Your task to perform on an android device: Open CNN.com Image 0: 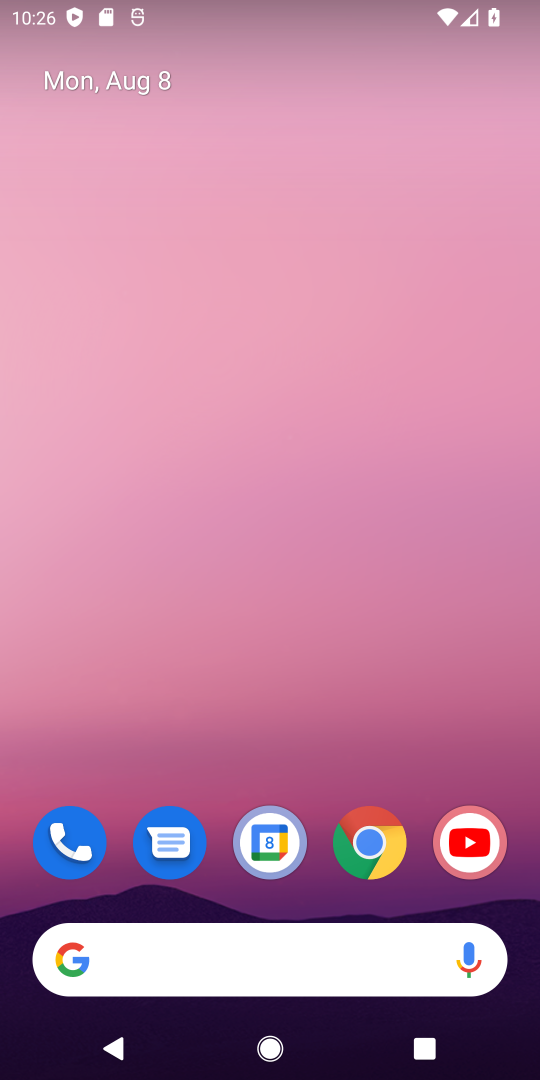
Step 0: click (370, 837)
Your task to perform on an android device: Open CNN.com Image 1: 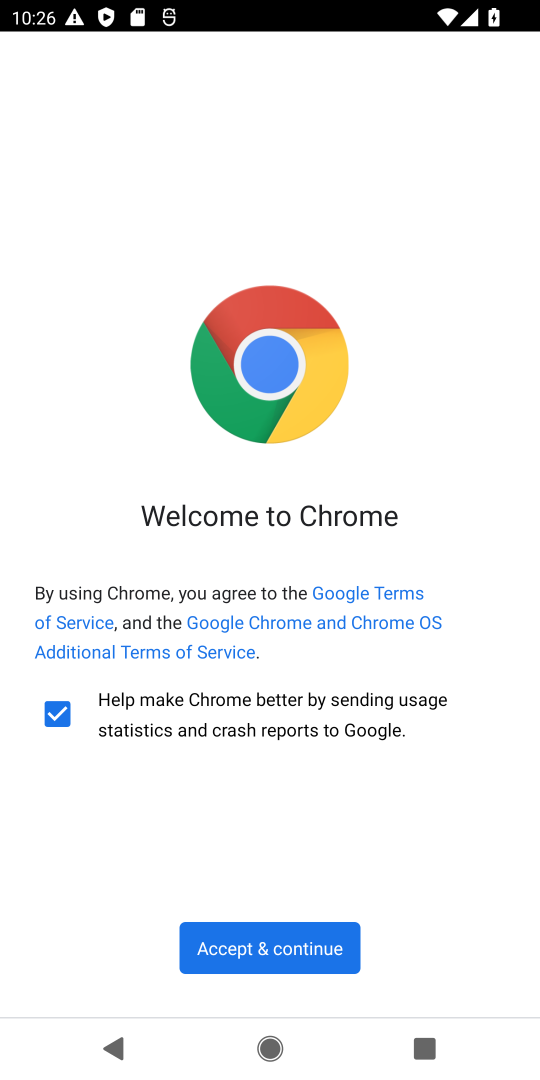
Step 1: click (258, 954)
Your task to perform on an android device: Open CNN.com Image 2: 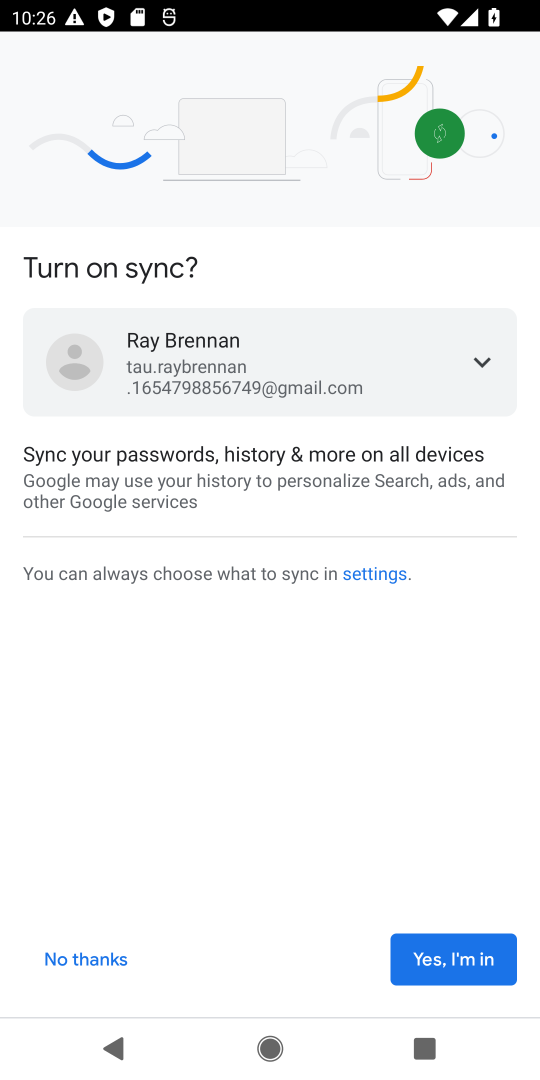
Step 2: click (423, 964)
Your task to perform on an android device: Open CNN.com Image 3: 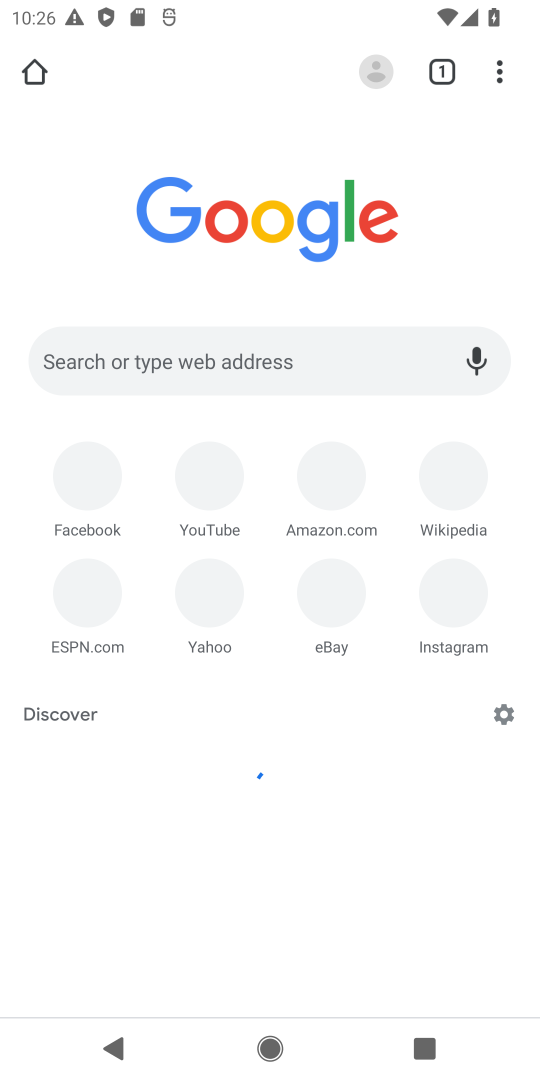
Step 3: click (323, 378)
Your task to perform on an android device: Open CNN.com Image 4: 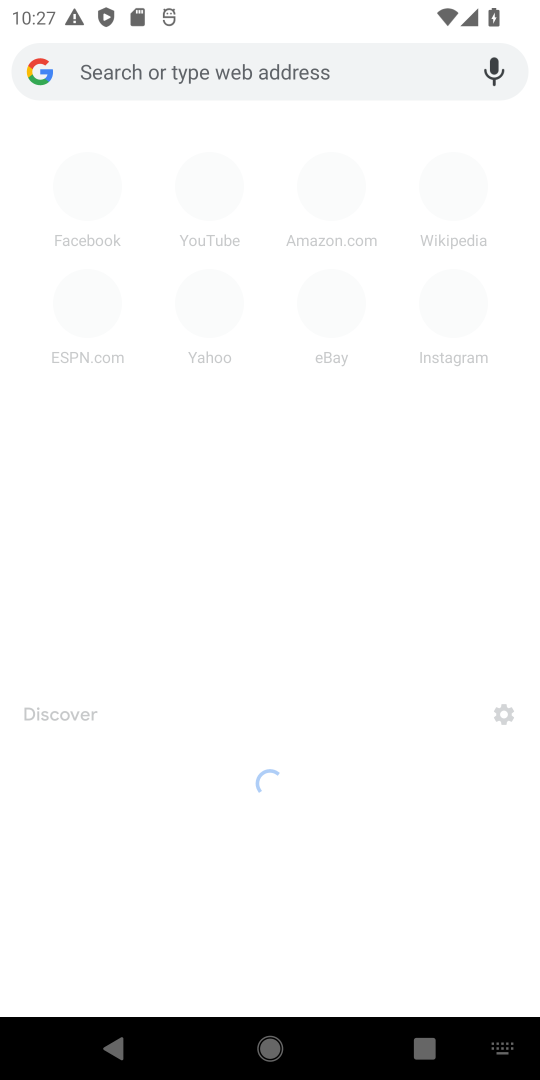
Step 4: type "cnn.com"
Your task to perform on an android device: Open CNN.com Image 5: 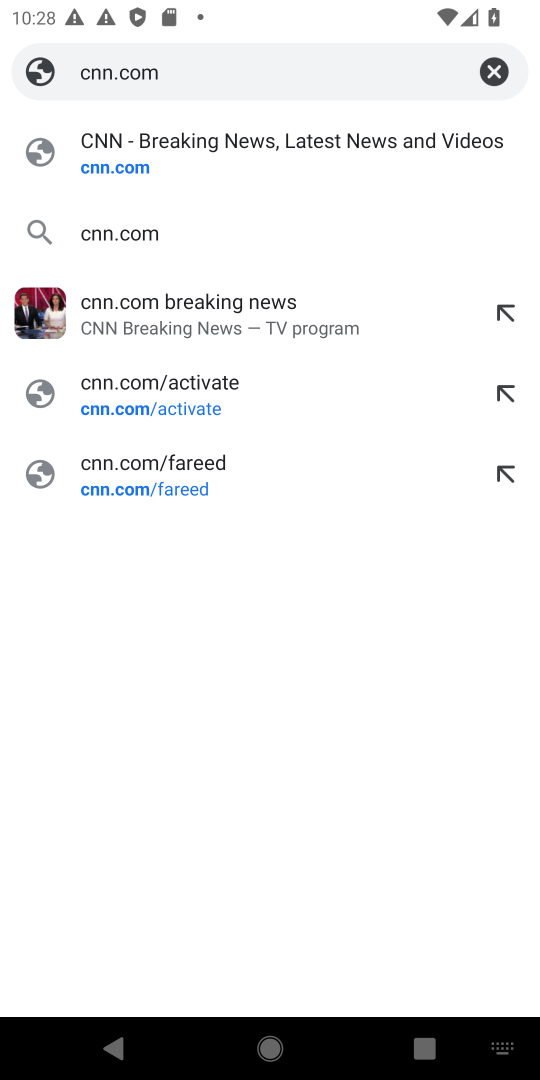
Step 5: click (99, 150)
Your task to perform on an android device: Open CNN.com Image 6: 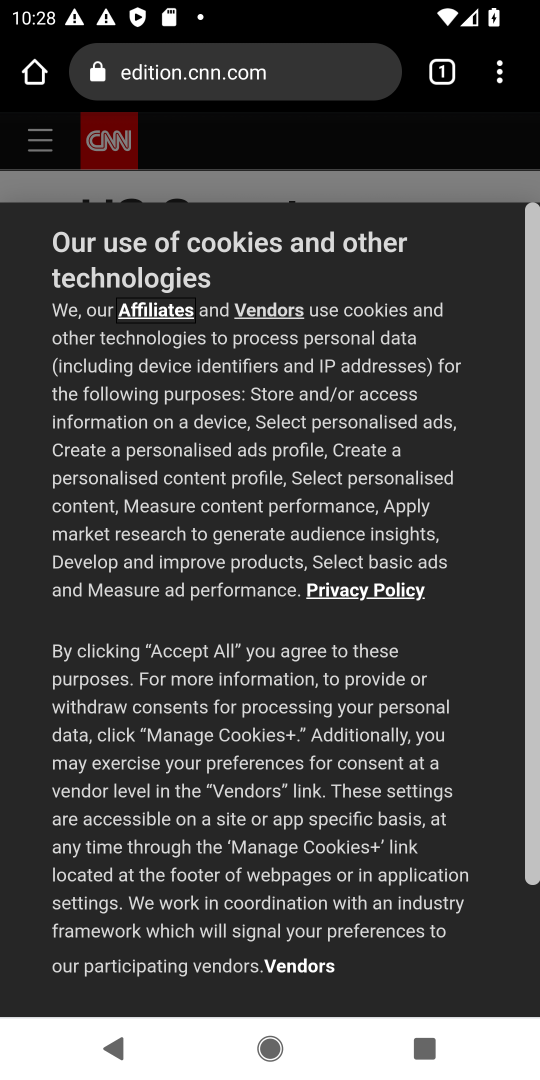
Step 6: drag from (438, 629) to (399, 369)
Your task to perform on an android device: Open CNN.com Image 7: 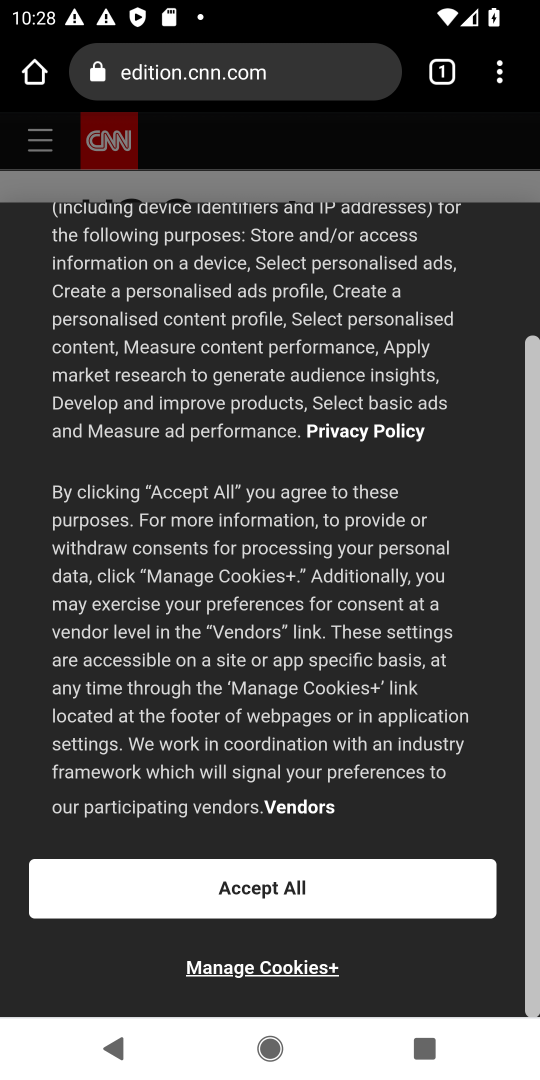
Step 7: click (253, 890)
Your task to perform on an android device: Open CNN.com Image 8: 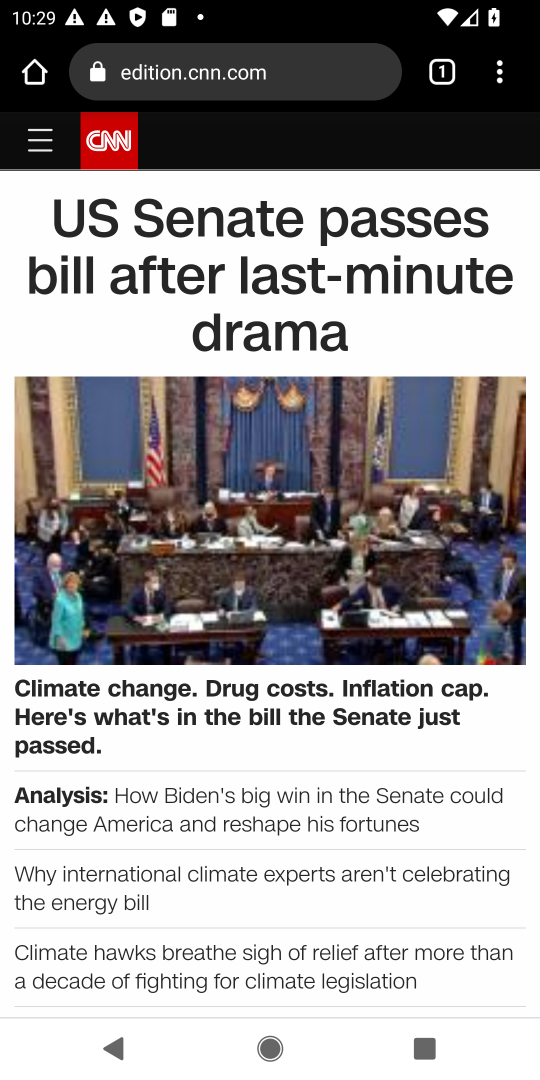
Step 8: task complete